Your task to perform on an android device: add a contact Image 0: 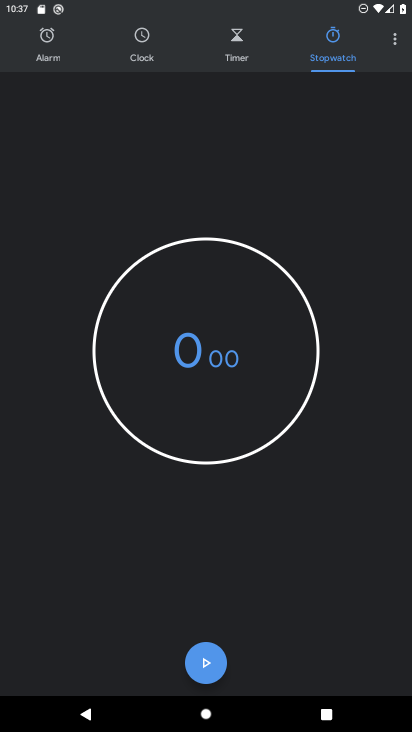
Step 0: press home button
Your task to perform on an android device: add a contact Image 1: 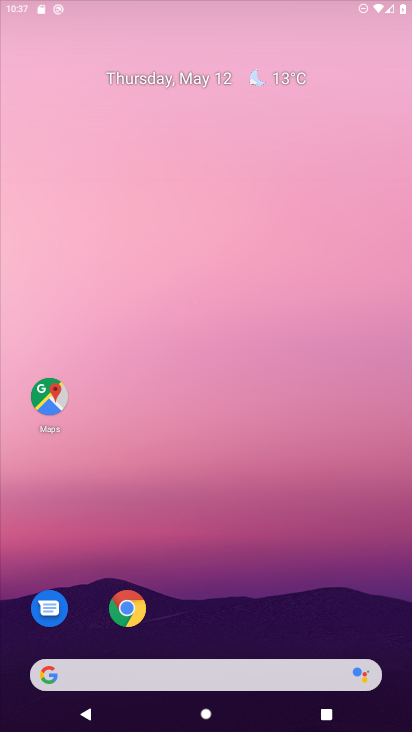
Step 1: drag from (235, 627) to (301, 41)
Your task to perform on an android device: add a contact Image 2: 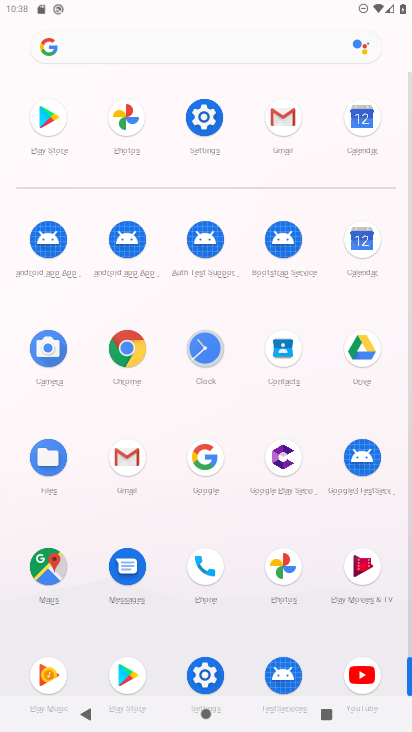
Step 2: click (272, 360)
Your task to perform on an android device: add a contact Image 3: 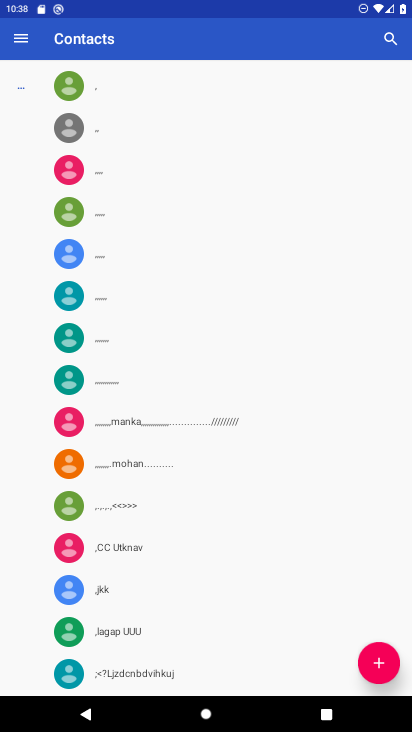
Step 3: click (377, 648)
Your task to perform on an android device: add a contact Image 4: 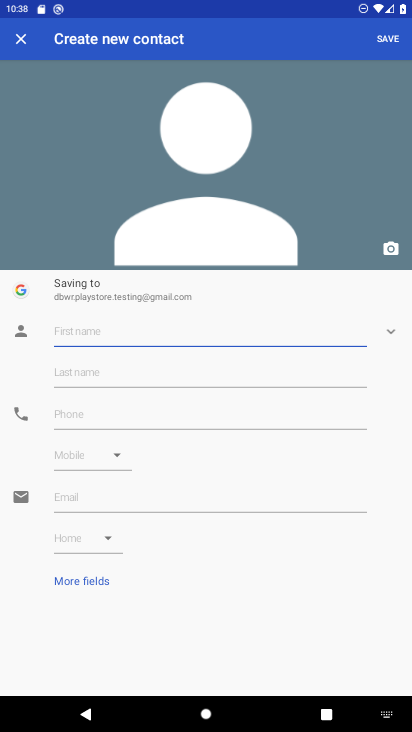
Step 4: type "ghdgh"
Your task to perform on an android device: add a contact Image 5: 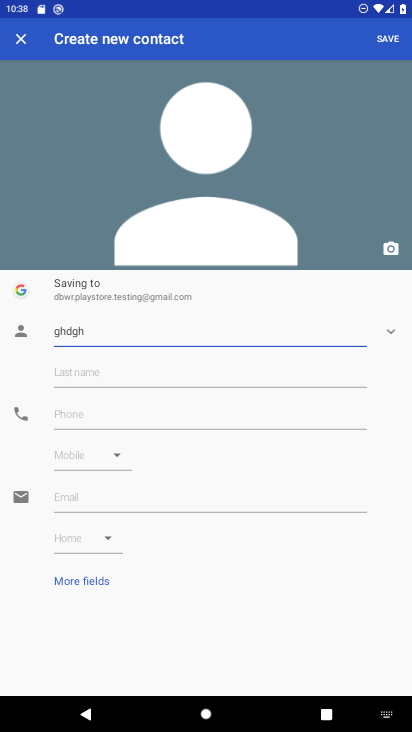
Step 5: click (384, 31)
Your task to perform on an android device: add a contact Image 6: 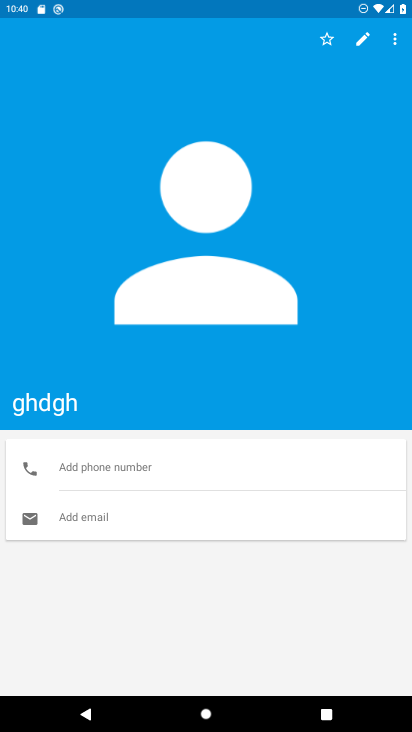
Step 6: task complete